Your task to perform on an android device: change the clock display to show seconds Image 0: 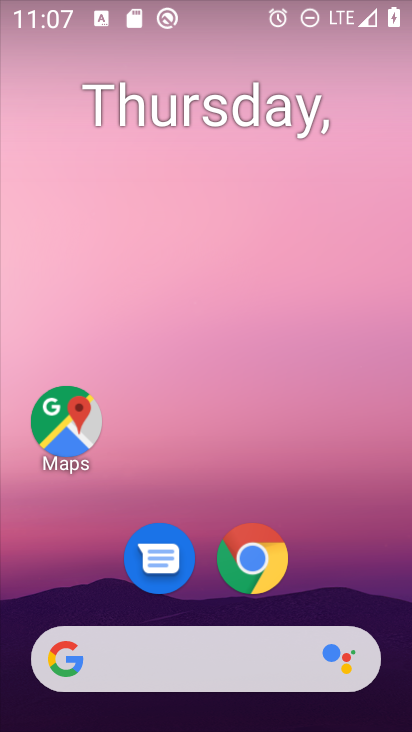
Step 0: drag from (383, 634) to (333, 93)
Your task to perform on an android device: change the clock display to show seconds Image 1: 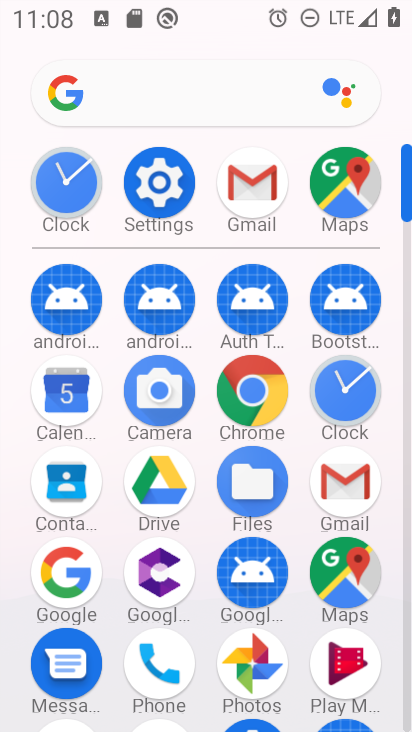
Step 1: click (409, 702)
Your task to perform on an android device: change the clock display to show seconds Image 2: 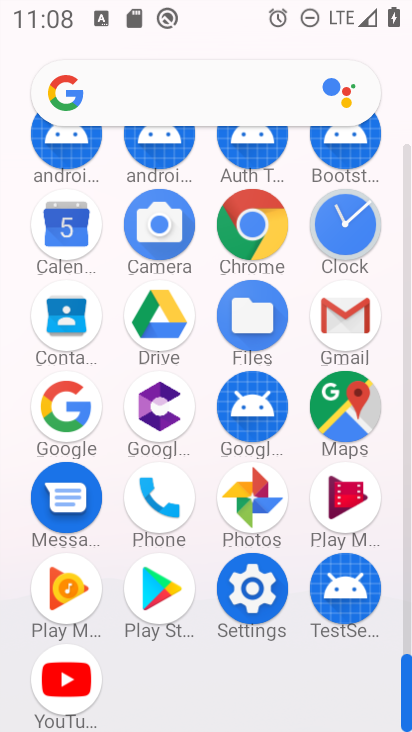
Step 2: click (343, 218)
Your task to perform on an android device: change the clock display to show seconds Image 3: 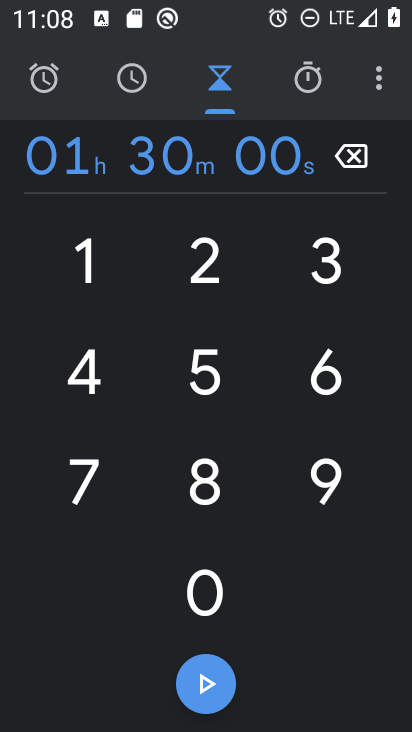
Step 3: click (376, 84)
Your task to perform on an android device: change the clock display to show seconds Image 4: 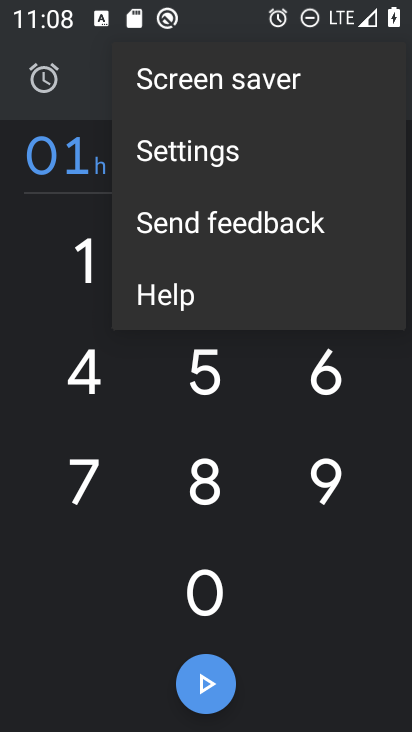
Step 4: click (207, 149)
Your task to perform on an android device: change the clock display to show seconds Image 5: 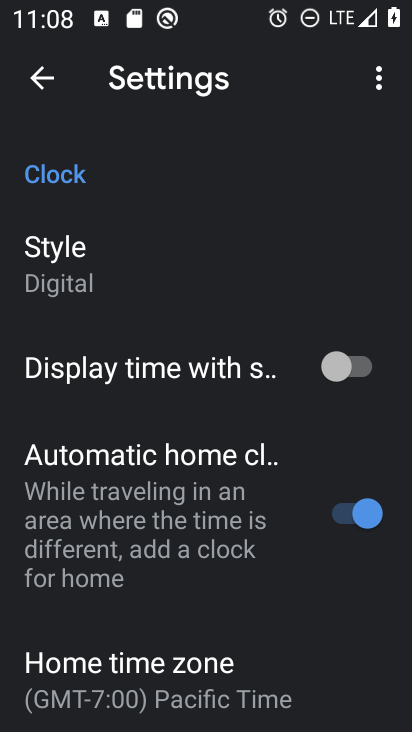
Step 5: click (359, 364)
Your task to perform on an android device: change the clock display to show seconds Image 6: 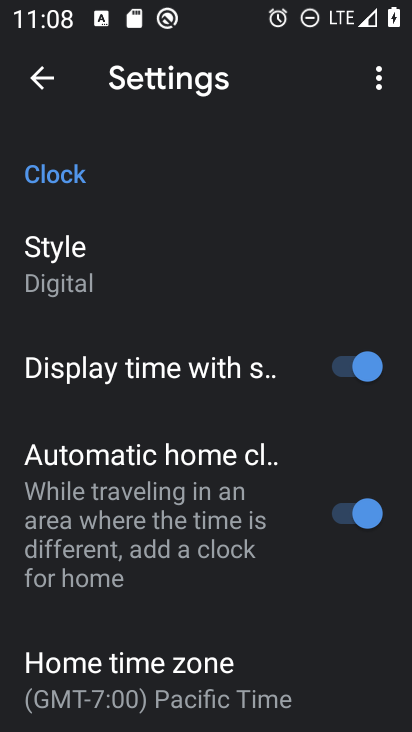
Step 6: task complete